Your task to perform on an android device: Open Chrome and go to settings Image 0: 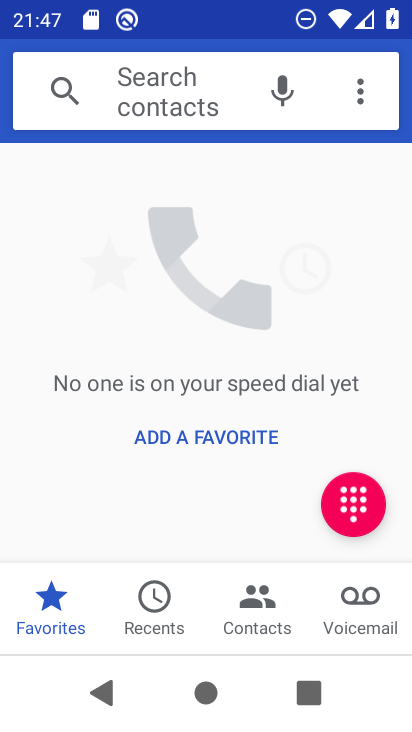
Step 0: press home button
Your task to perform on an android device: Open Chrome and go to settings Image 1: 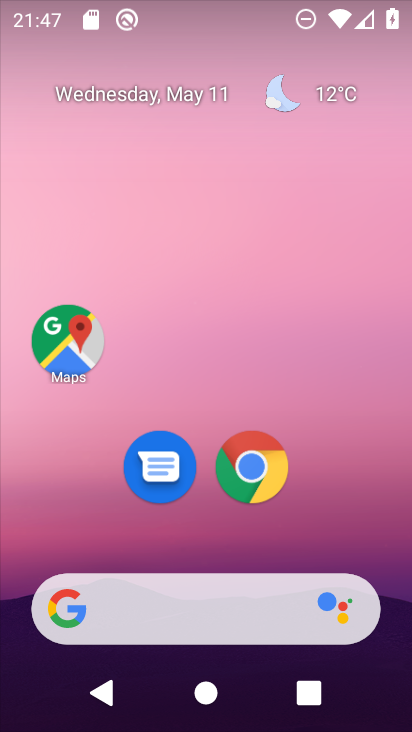
Step 1: click (247, 465)
Your task to perform on an android device: Open Chrome and go to settings Image 2: 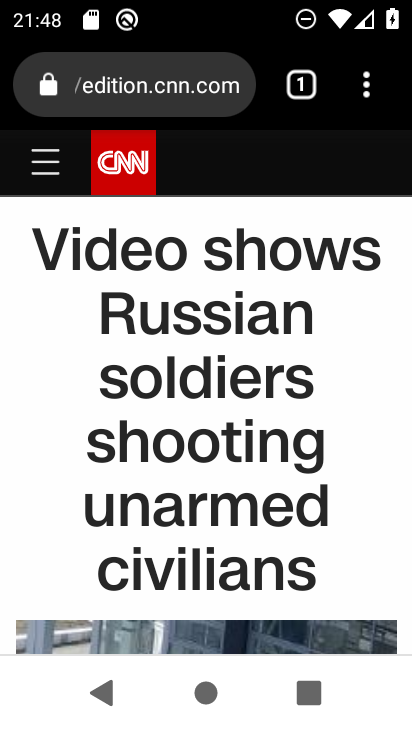
Step 2: click (367, 82)
Your task to perform on an android device: Open Chrome and go to settings Image 3: 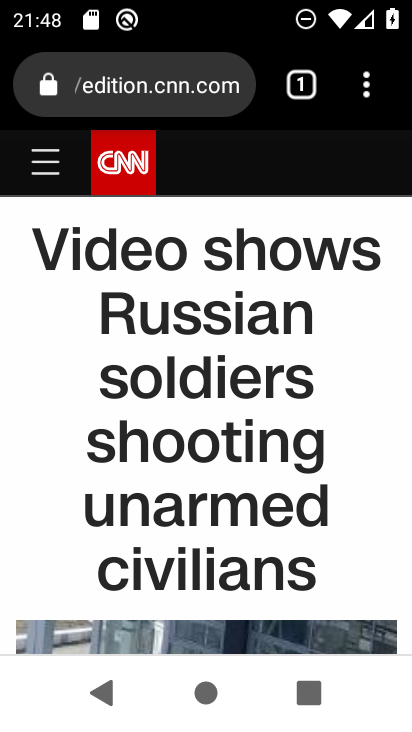
Step 3: click (360, 85)
Your task to perform on an android device: Open Chrome and go to settings Image 4: 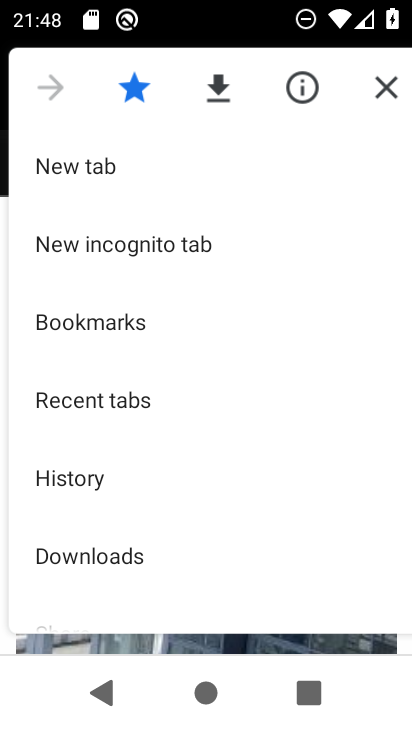
Step 4: drag from (204, 561) to (212, 167)
Your task to perform on an android device: Open Chrome and go to settings Image 5: 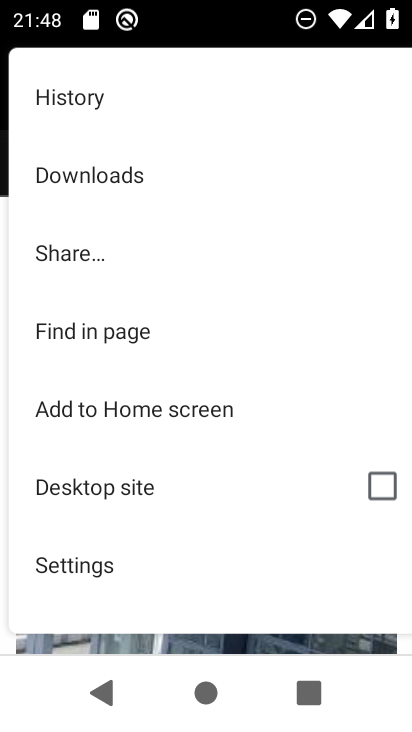
Step 5: drag from (185, 569) to (212, 91)
Your task to perform on an android device: Open Chrome and go to settings Image 6: 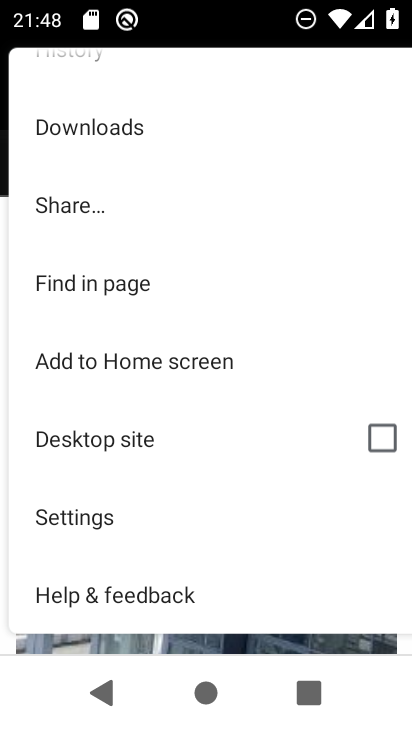
Step 6: click (145, 512)
Your task to perform on an android device: Open Chrome and go to settings Image 7: 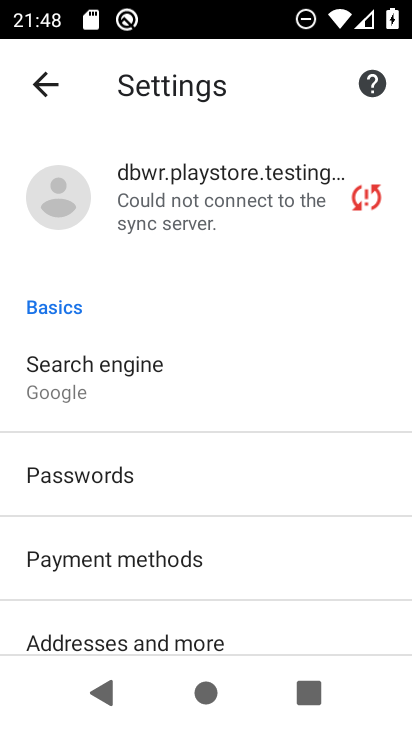
Step 7: task complete